Your task to perform on an android device: Go to display settings Image 0: 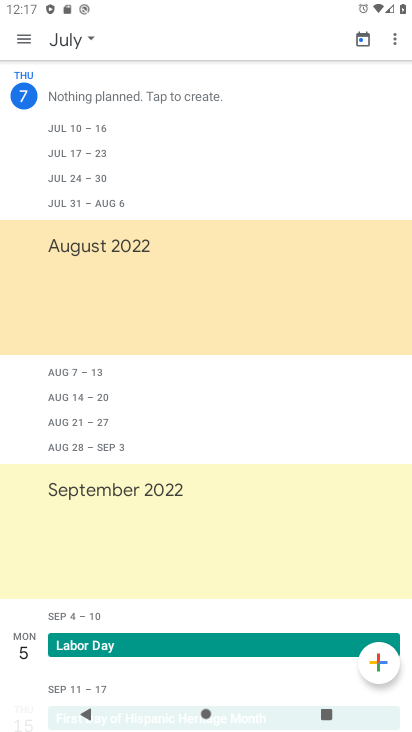
Step 0: press back button
Your task to perform on an android device: Go to display settings Image 1: 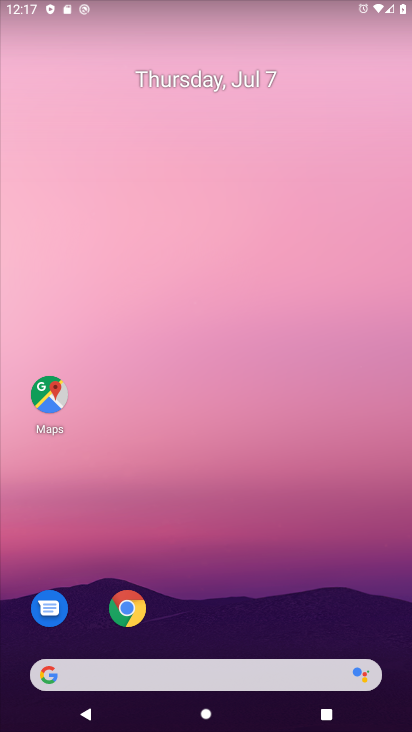
Step 1: drag from (197, 622) to (279, 33)
Your task to perform on an android device: Go to display settings Image 2: 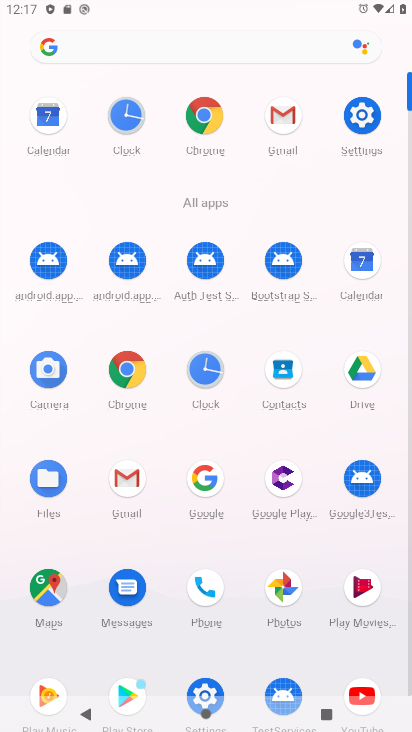
Step 2: click (369, 134)
Your task to perform on an android device: Go to display settings Image 3: 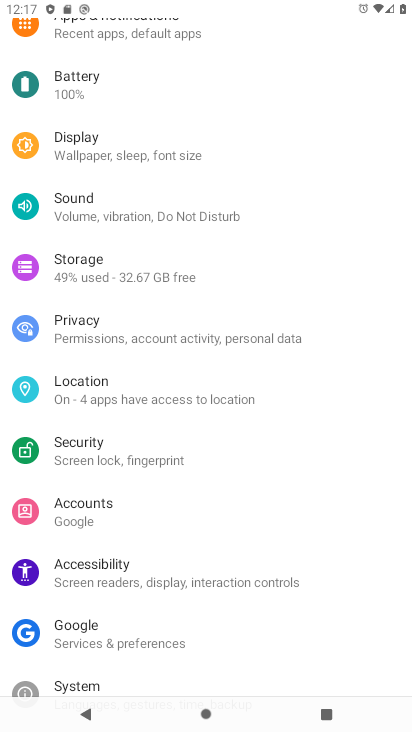
Step 3: click (140, 152)
Your task to perform on an android device: Go to display settings Image 4: 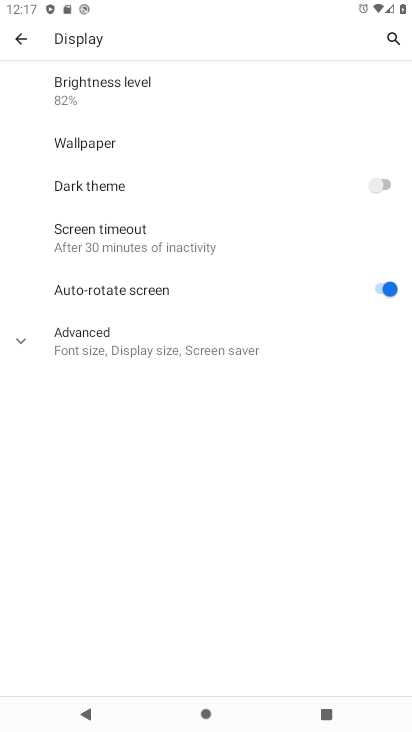
Step 4: task complete